Your task to perform on an android device: Search for bose soundsport free on target, select the first entry, add it to the cart, then select checkout. Image 0: 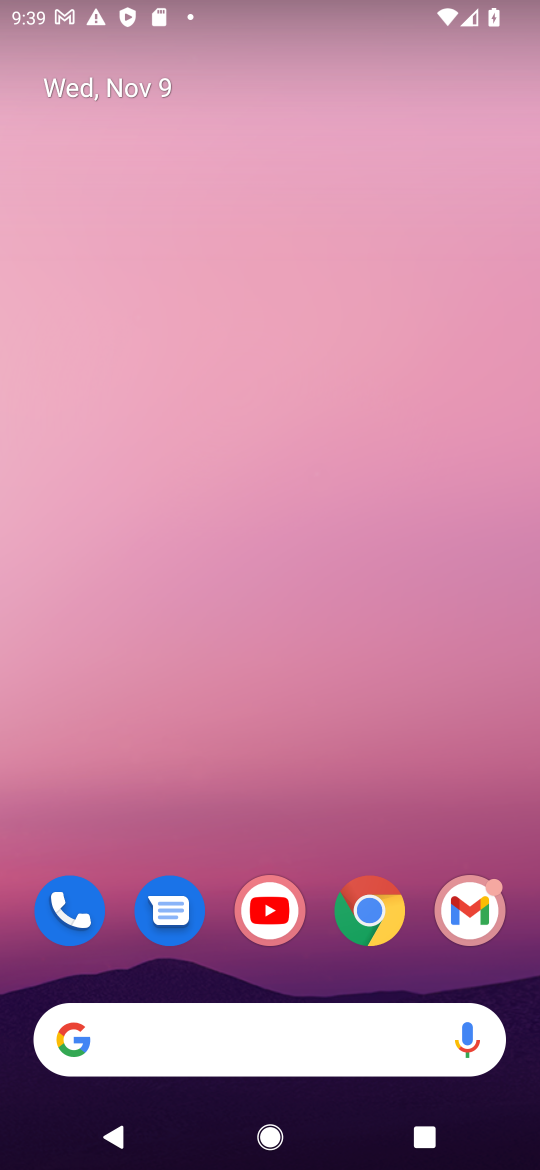
Step 0: click (372, 915)
Your task to perform on an android device: Search for bose soundsport free on target, select the first entry, add it to the cart, then select checkout. Image 1: 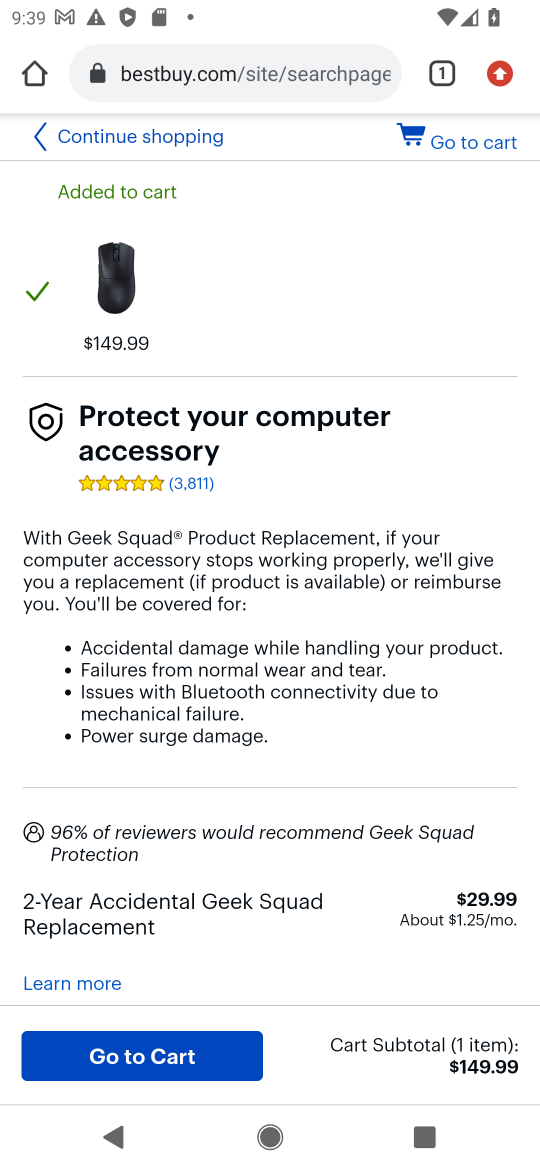
Step 1: click (267, 70)
Your task to perform on an android device: Search for bose soundsport free on target, select the first entry, add it to the cart, then select checkout. Image 2: 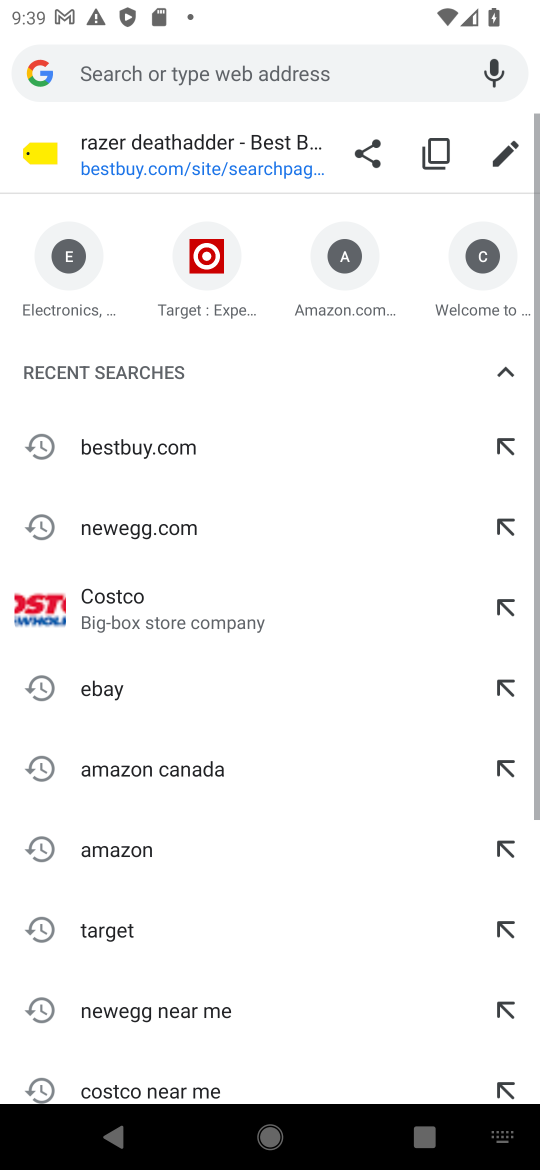
Step 2: click (206, 263)
Your task to perform on an android device: Search for bose soundsport free on target, select the first entry, add it to the cart, then select checkout. Image 3: 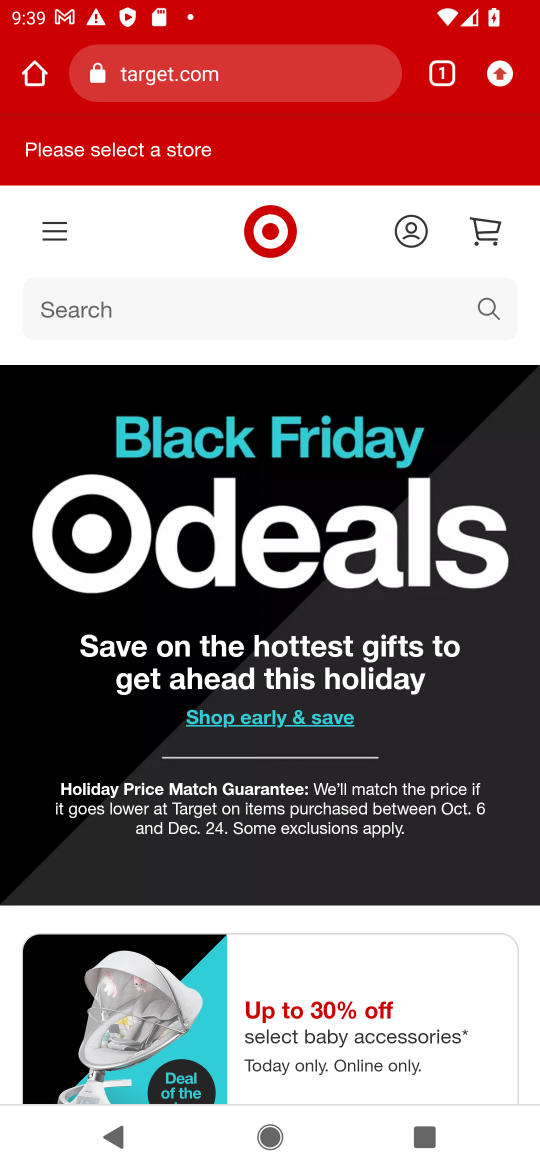
Step 3: click (485, 306)
Your task to perform on an android device: Search for bose soundsport free on target, select the first entry, add it to the cart, then select checkout. Image 4: 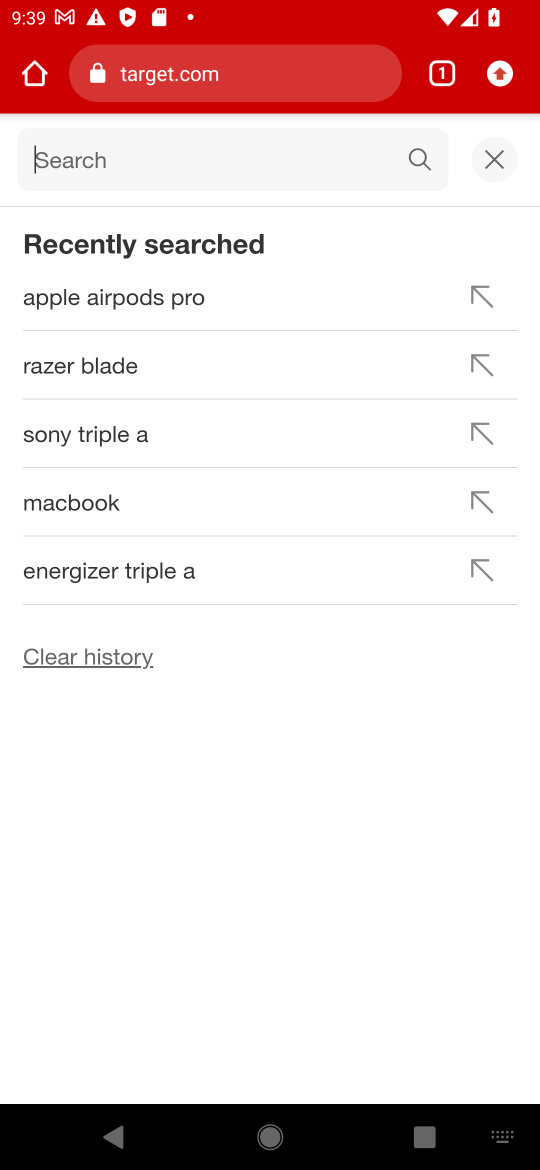
Step 4: type "bose soundsport free"
Your task to perform on an android device: Search for bose soundsport free on target, select the first entry, add it to the cart, then select checkout. Image 5: 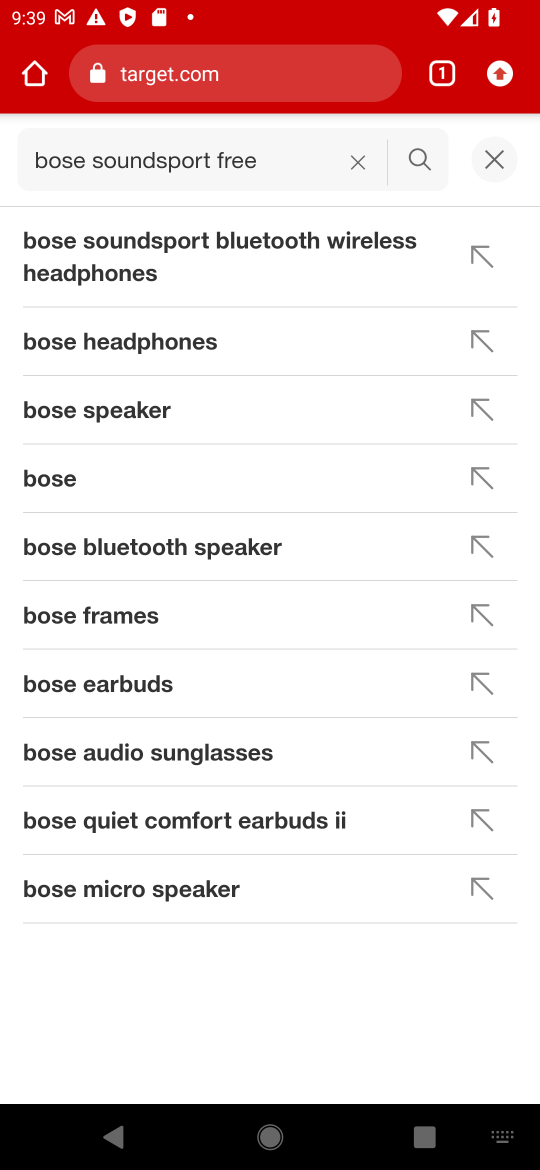
Step 5: click (407, 157)
Your task to perform on an android device: Search for bose soundsport free on target, select the first entry, add it to the cart, then select checkout. Image 6: 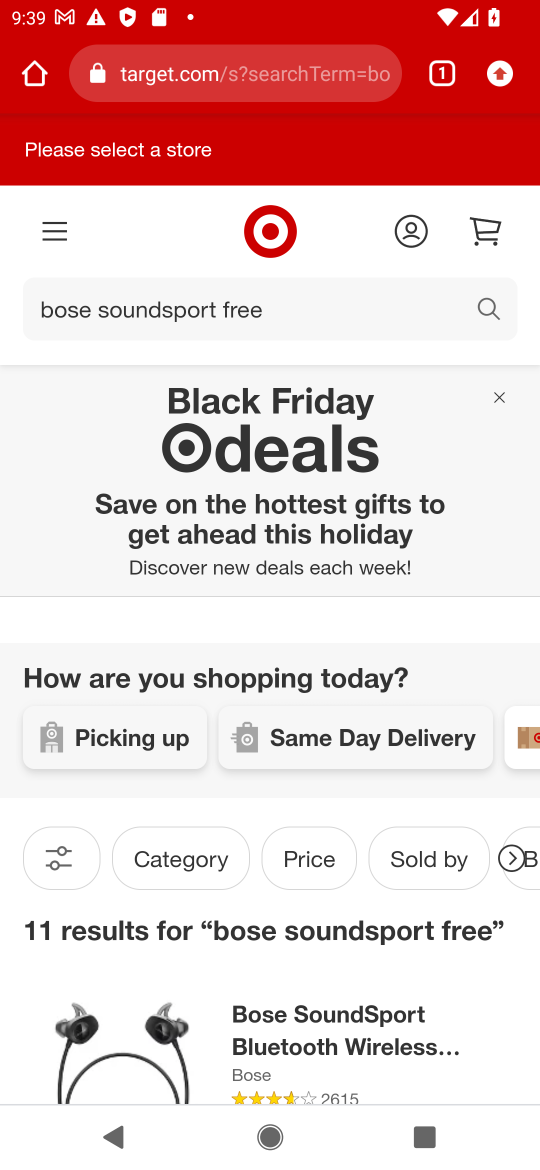
Step 6: drag from (231, 782) to (223, 443)
Your task to perform on an android device: Search for bose soundsport free on target, select the first entry, add it to the cart, then select checkout. Image 7: 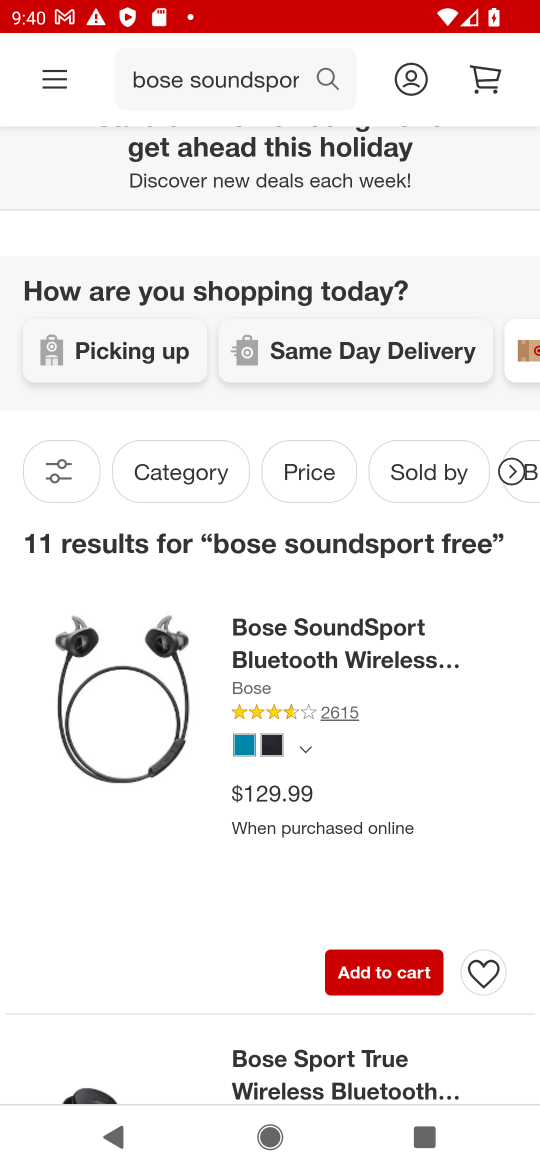
Step 7: click (276, 669)
Your task to perform on an android device: Search for bose soundsport free on target, select the first entry, add it to the cart, then select checkout. Image 8: 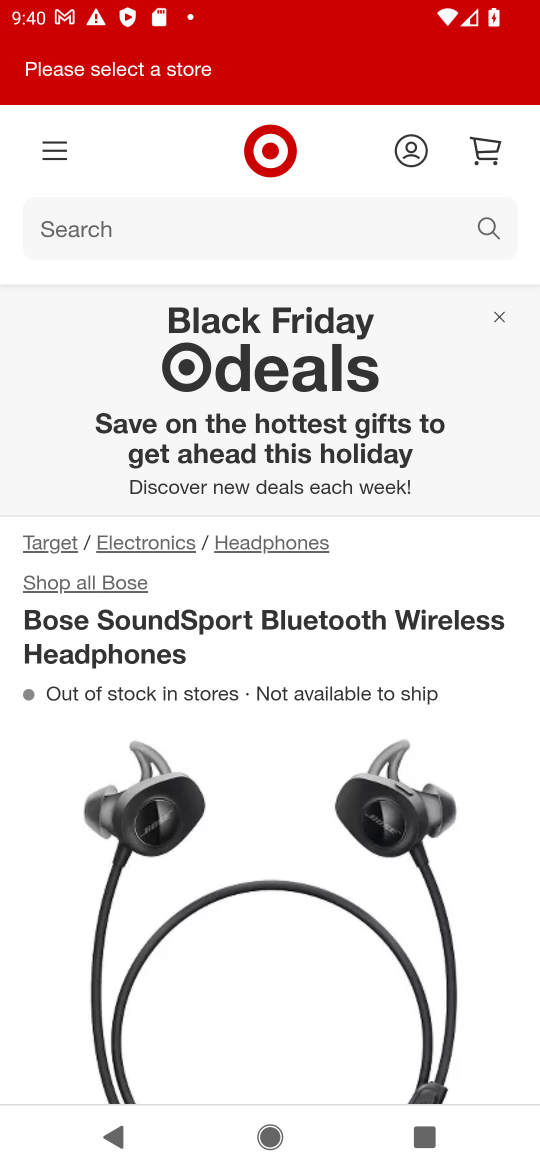
Step 8: task complete